Your task to perform on an android device: Do I have any events tomorrow? Image 0: 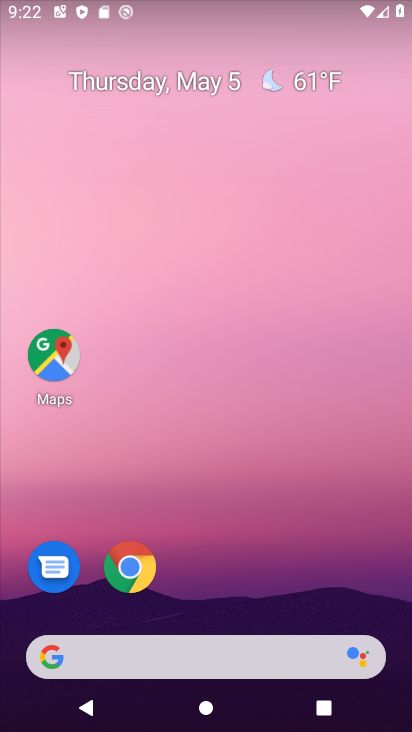
Step 0: drag from (308, 566) to (294, 208)
Your task to perform on an android device: Do I have any events tomorrow? Image 1: 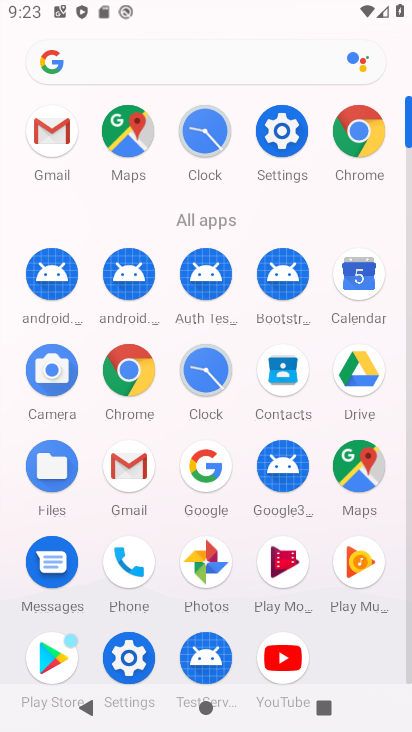
Step 1: click (350, 275)
Your task to perform on an android device: Do I have any events tomorrow? Image 2: 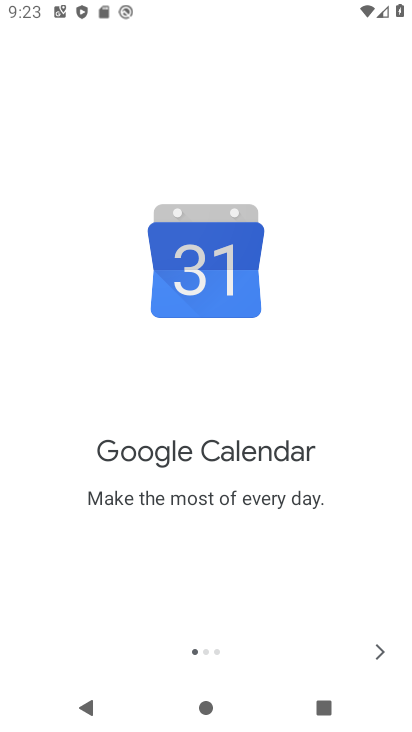
Step 2: click (379, 644)
Your task to perform on an android device: Do I have any events tomorrow? Image 3: 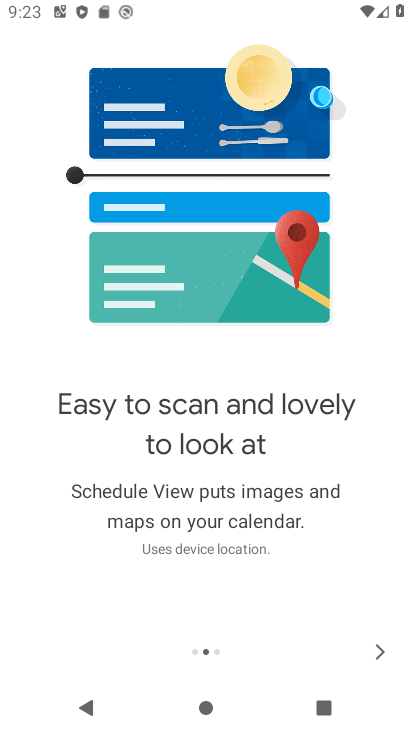
Step 3: click (380, 643)
Your task to perform on an android device: Do I have any events tomorrow? Image 4: 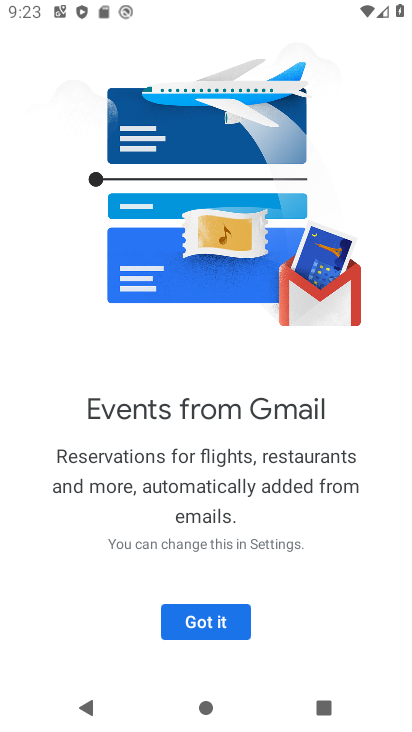
Step 4: click (215, 628)
Your task to perform on an android device: Do I have any events tomorrow? Image 5: 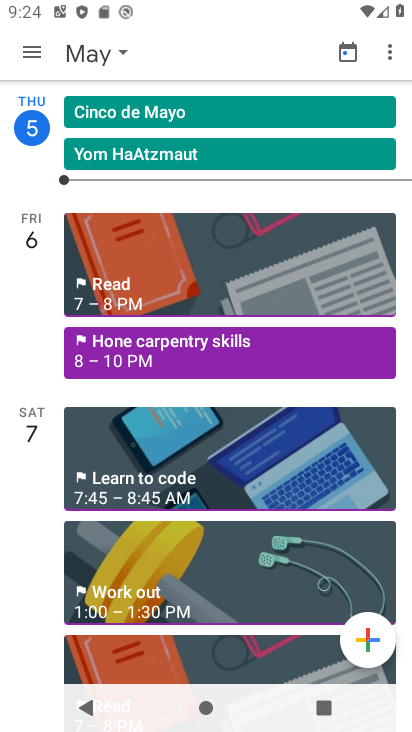
Step 5: click (36, 56)
Your task to perform on an android device: Do I have any events tomorrow? Image 6: 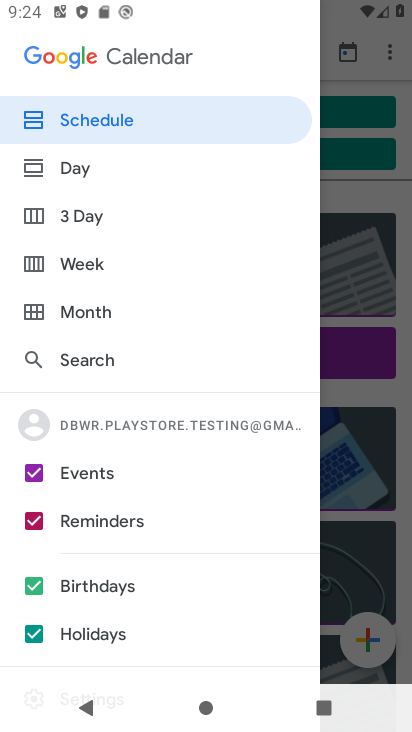
Step 6: click (36, 518)
Your task to perform on an android device: Do I have any events tomorrow? Image 7: 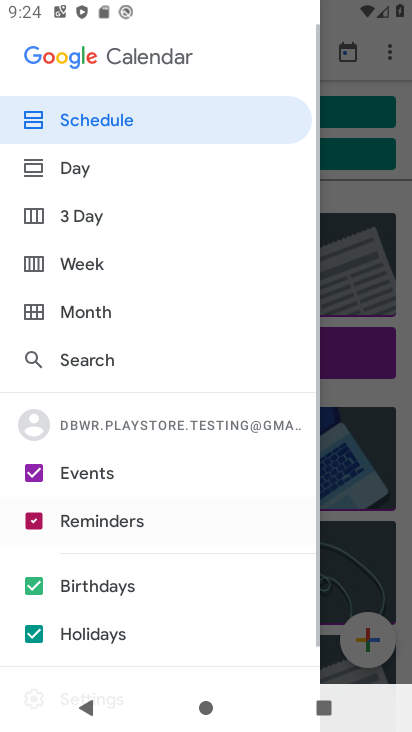
Step 7: click (28, 587)
Your task to perform on an android device: Do I have any events tomorrow? Image 8: 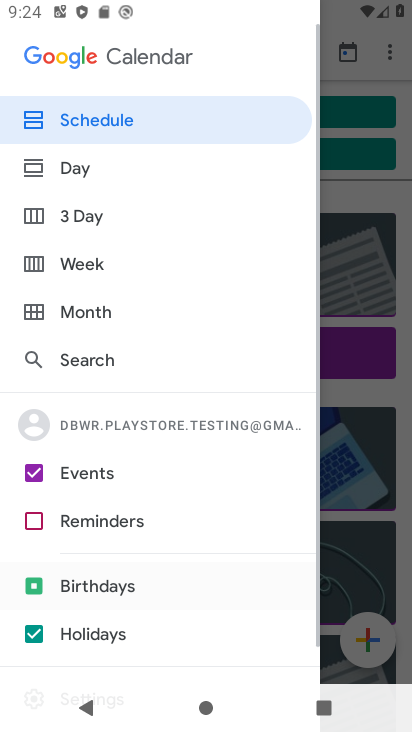
Step 8: click (32, 636)
Your task to perform on an android device: Do I have any events tomorrow? Image 9: 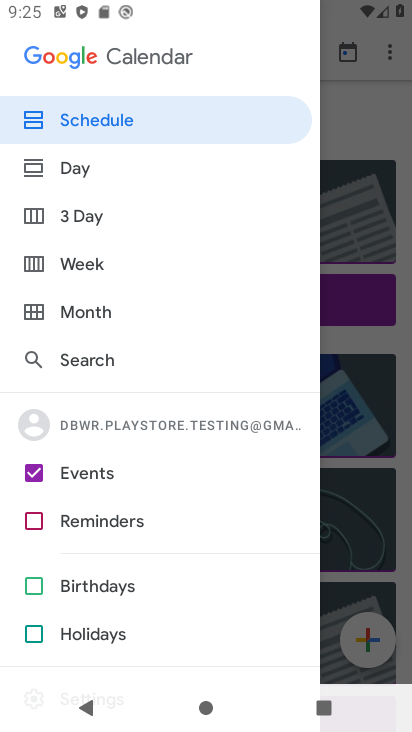
Step 9: click (142, 118)
Your task to perform on an android device: Do I have any events tomorrow? Image 10: 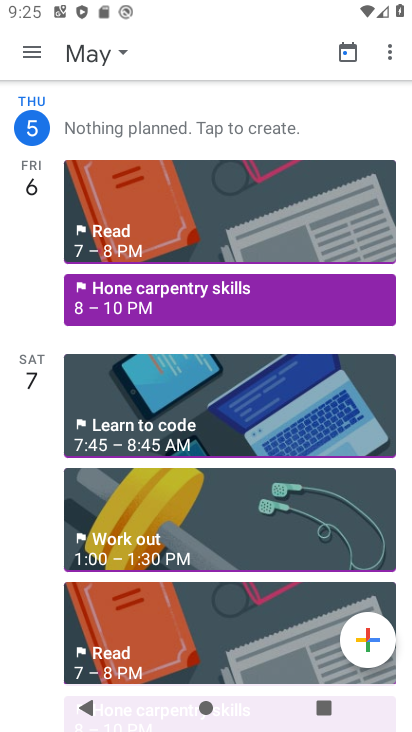
Step 10: click (97, 56)
Your task to perform on an android device: Do I have any events tomorrow? Image 11: 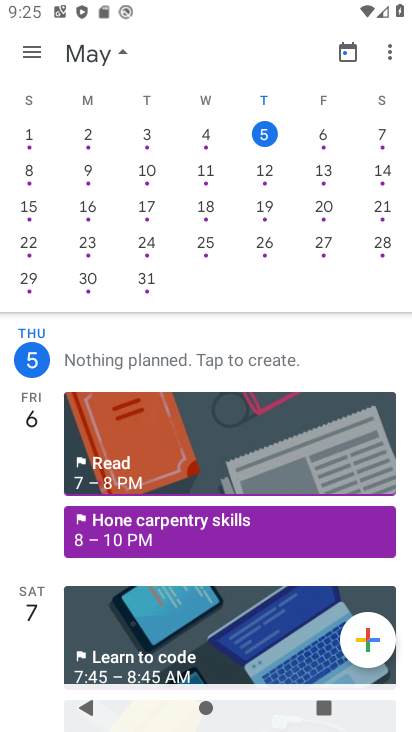
Step 11: click (374, 137)
Your task to perform on an android device: Do I have any events tomorrow? Image 12: 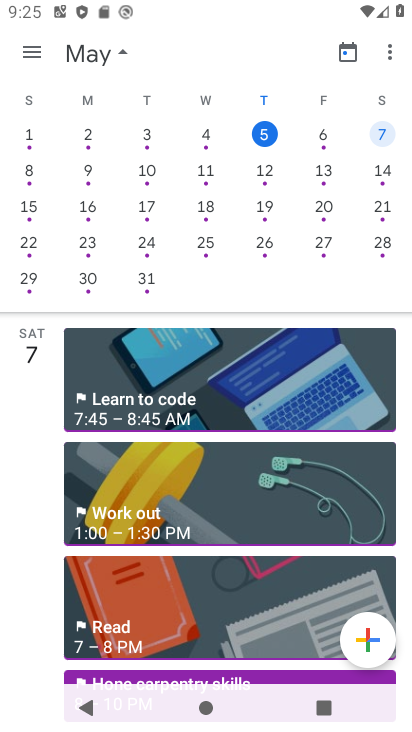
Step 12: task complete